Your task to perform on an android device: When is my next meeting? Image 0: 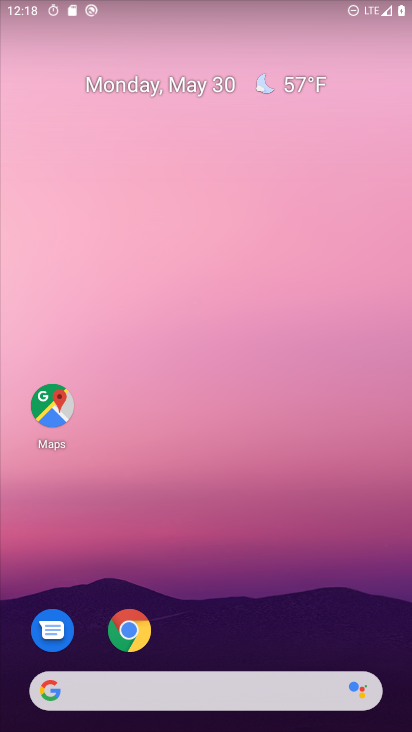
Step 0: press home button
Your task to perform on an android device: When is my next meeting? Image 1: 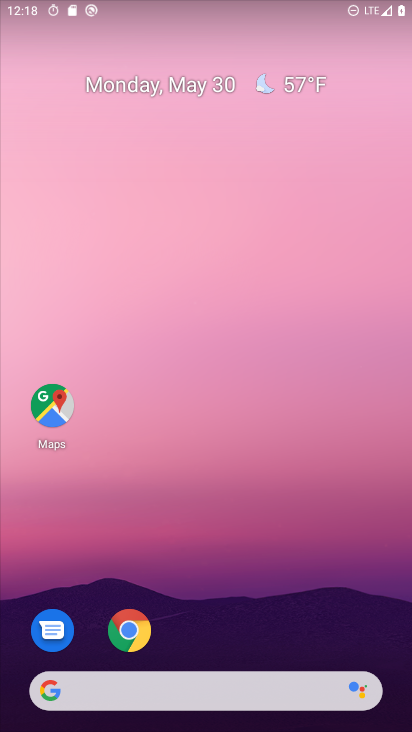
Step 1: drag from (273, 699) to (184, 258)
Your task to perform on an android device: When is my next meeting? Image 2: 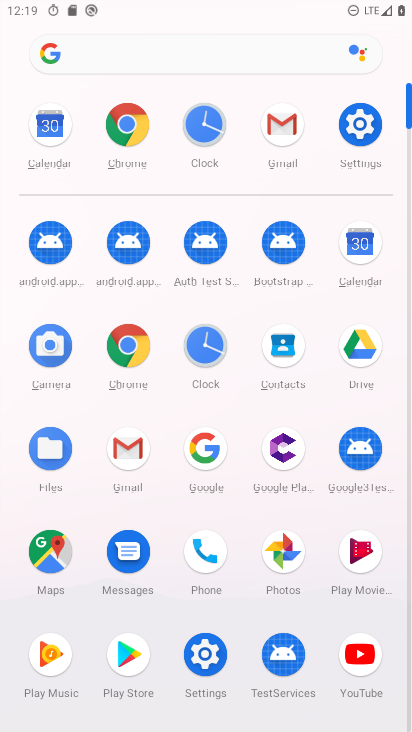
Step 2: click (365, 253)
Your task to perform on an android device: When is my next meeting? Image 3: 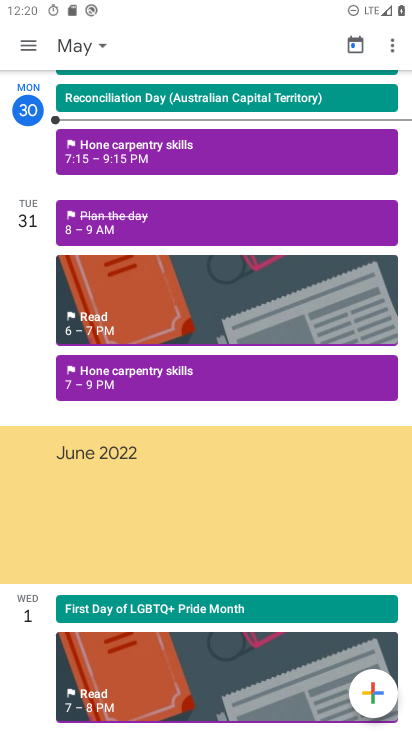
Step 3: task complete